Your task to perform on an android device: Search for vegetarian restaurants on Maps Image 0: 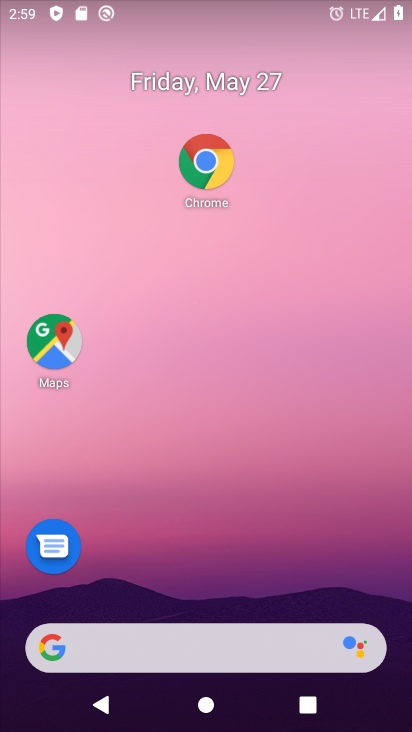
Step 0: click (45, 343)
Your task to perform on an android device: Search for vegetarian restaurants on Maps Image 1: 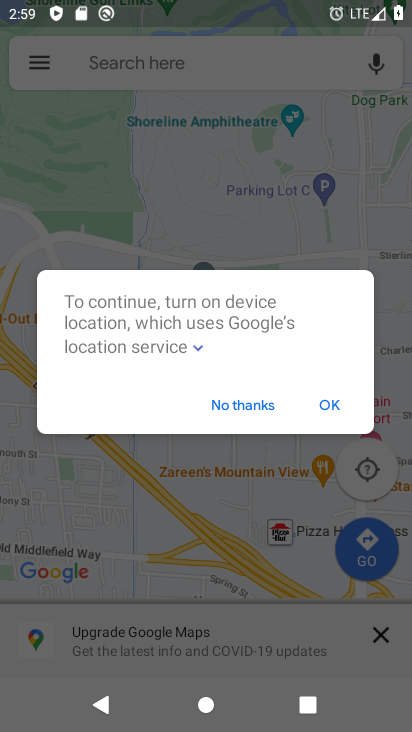
Step 1: click (106, 65)
Your task to perform on an android device: Search for vegetarian restaurants on Maps Image 2: 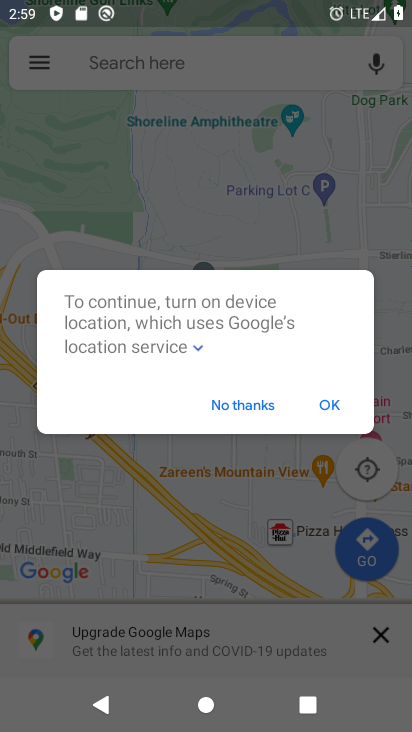
Step 2: click (339, 411)
Your task to perform on an android device: Search for vegetarian restaurants on Maps Image 3: 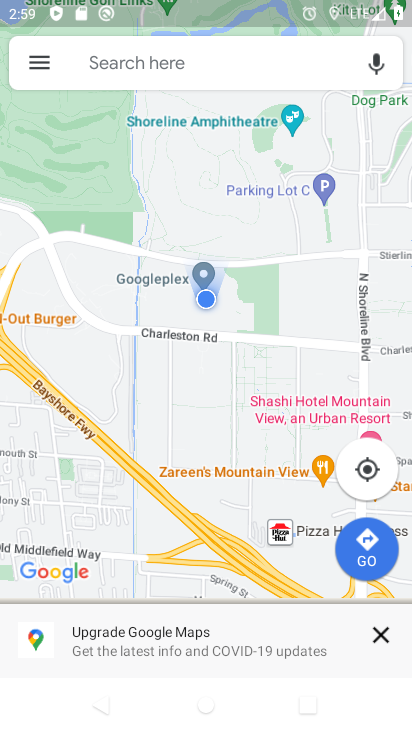
Step 3: click (118, 68)
Your task to perform on an android device: Search for vegetarian restaurants on Maps Image 4: 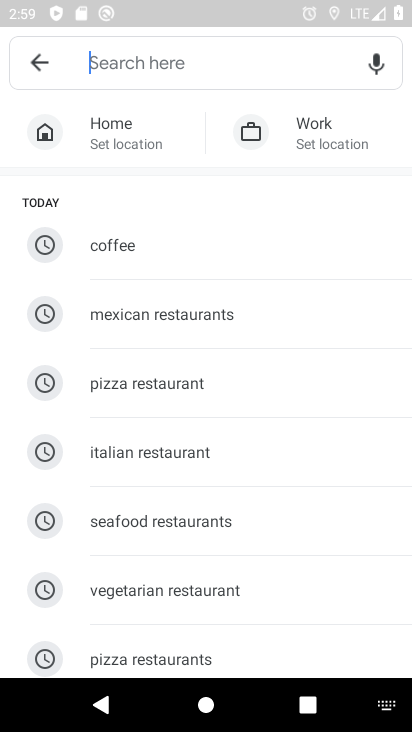
Step 4: type "vegetarian restaurants"
Your task to perform on an android device: Search for vegetarian restaurants on Maps Image 5: 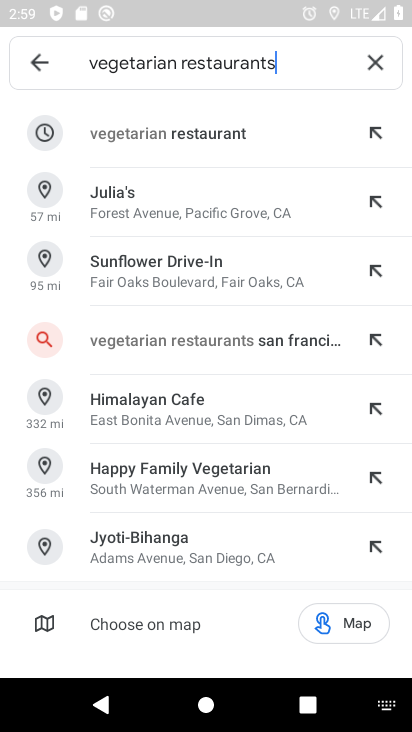
Step 5: click (119, 143)
Your task to perform on an android device: Search for vegetarian restaurants on Maps Image 6: 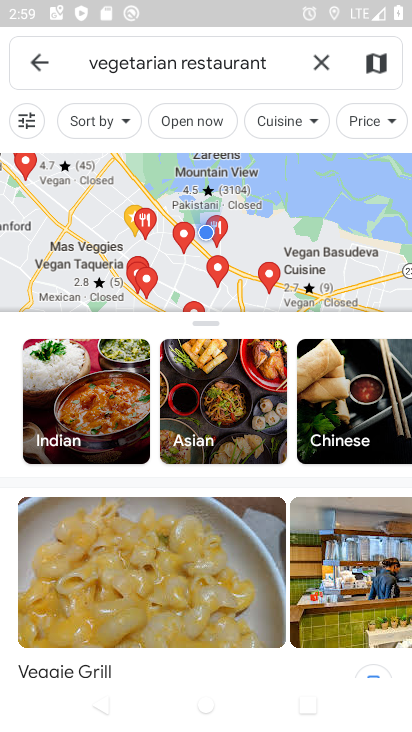
Step 6: task complete